Your task to perform on an android device: remove spam from my inbox in the gmail app Image 0: 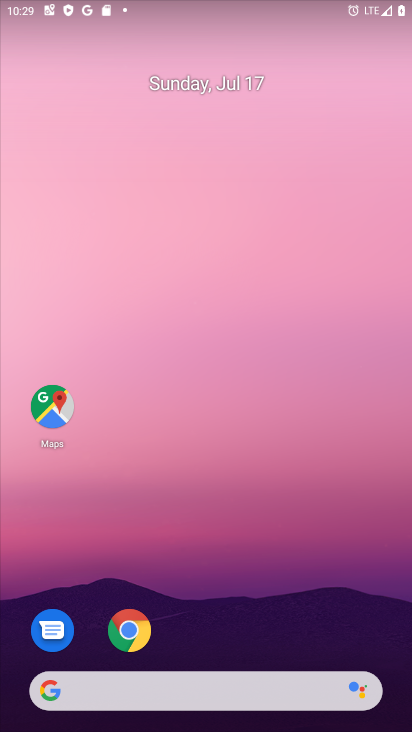
Step 0: press home button
Your task to perform on an android device: remove spam from my inbox in the gmail app Image 1: 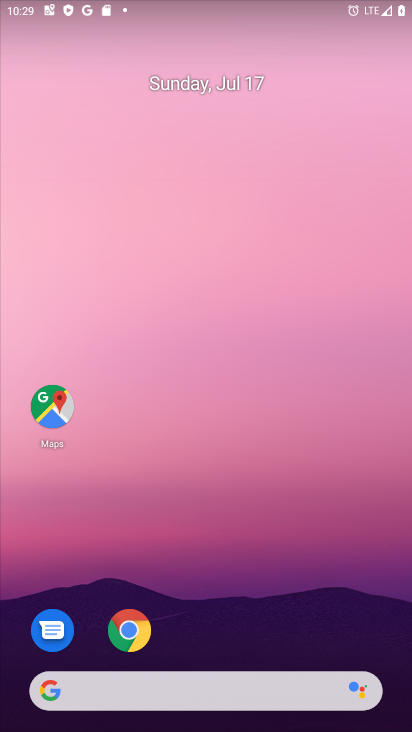
Step 1: drag from (201, 647) to (211, 135)
Your task to perform on an android device: remove spam from my inbox in the gmail app Image 2: 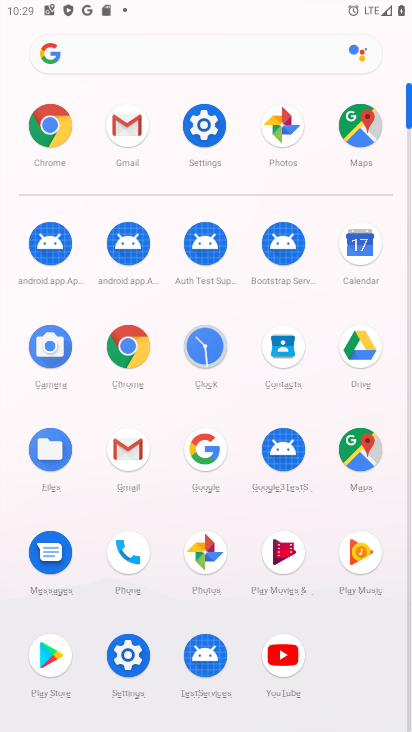
Step 2: click (120, 448)
Your task to perform on an android device: remove spam from my inbox in the gmail app Image 3: 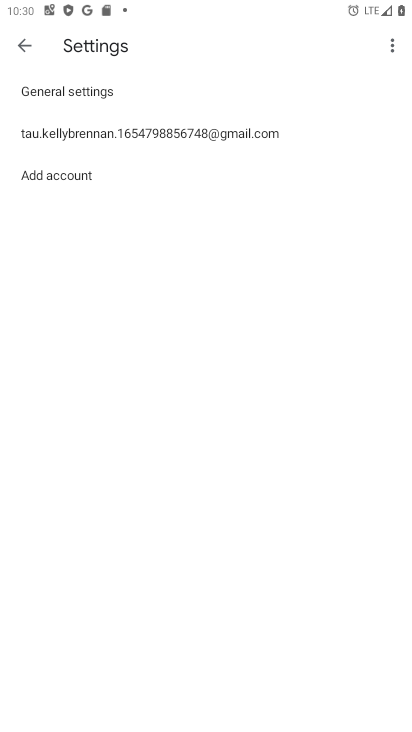
Step 3: click (16, 46)
Your task to perform on an android device: remove spam from my inbox in the gmail app Image 4: 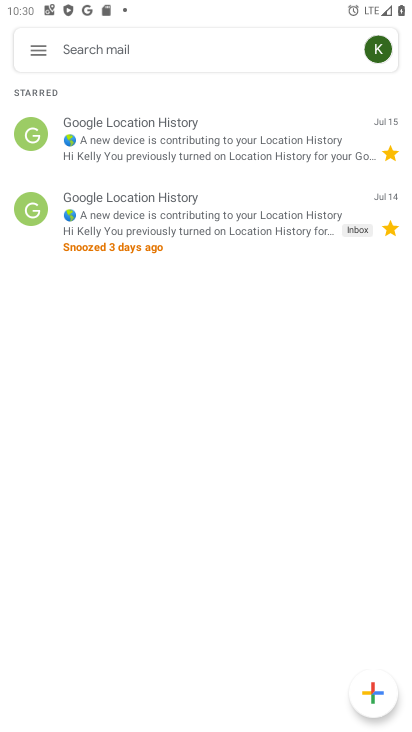
Step 4: click (30, 53)
Your task to perform on an android device: remove spam from my inbox in the gmail app Image 5: 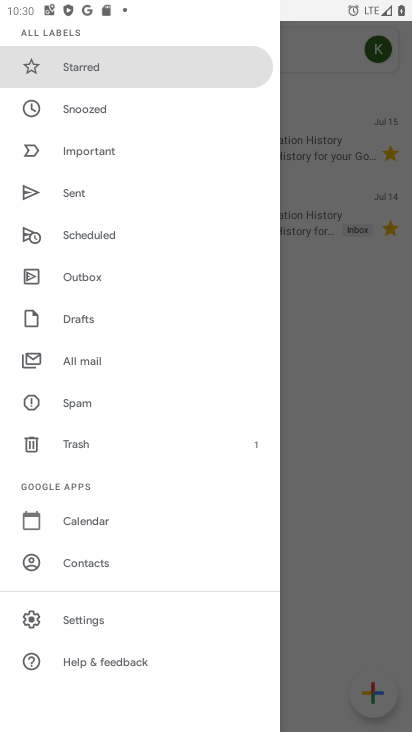
Step 5: click (68, 401)
Your task to perform on an android device: remove spam from my inbox in the gmail app Image 6: 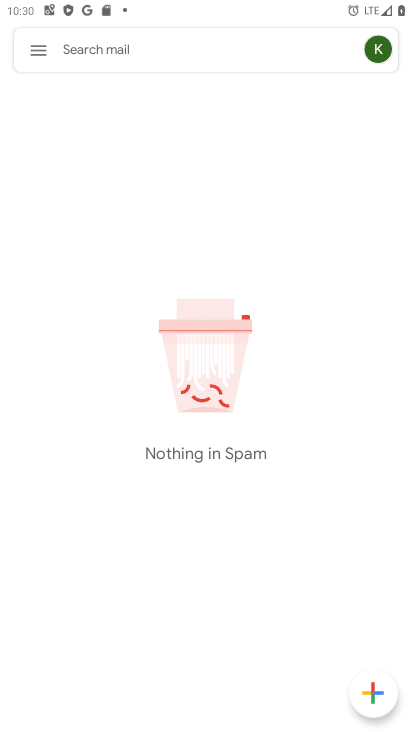
Step 6: task complete